Your task to perform on an android device: Open my contact list Image 0: 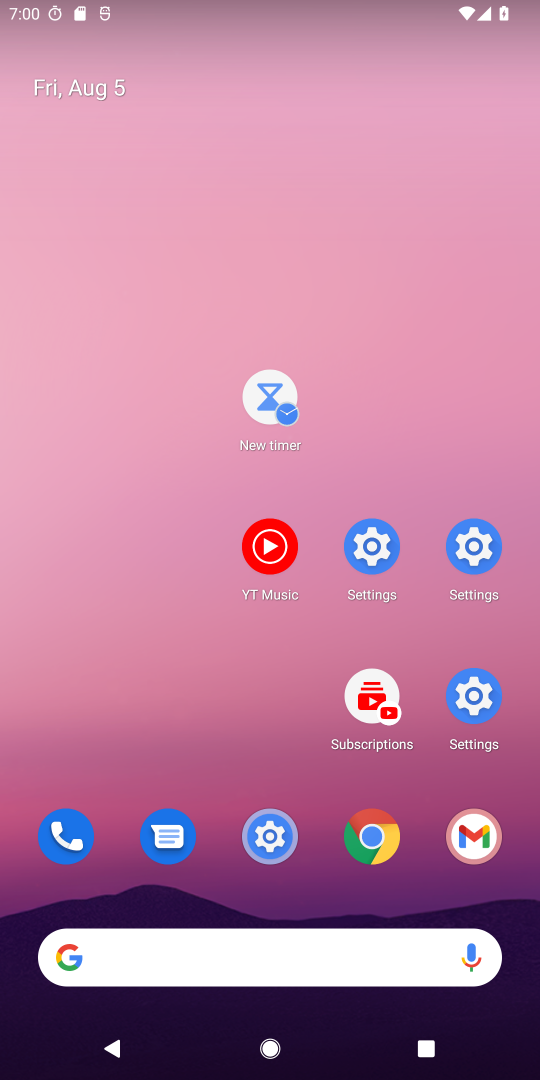
Step 0: click (168, 260)
Your task to perform on an android device: Open my contact list Image 1: 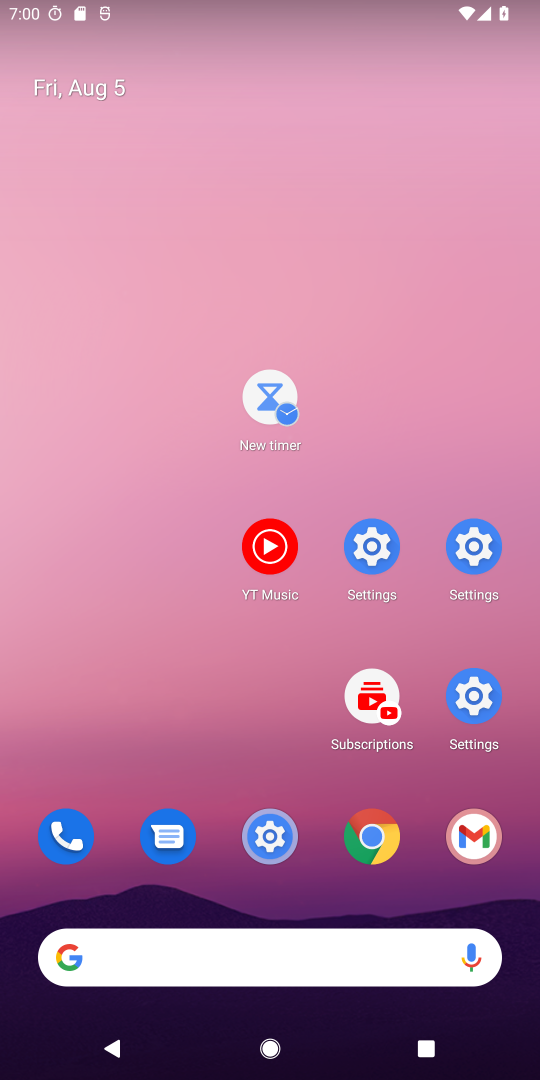
Step 1: drag from (291, 650) to (238, 197)
Your task to perform on an android device: Open my contact list Image 2: 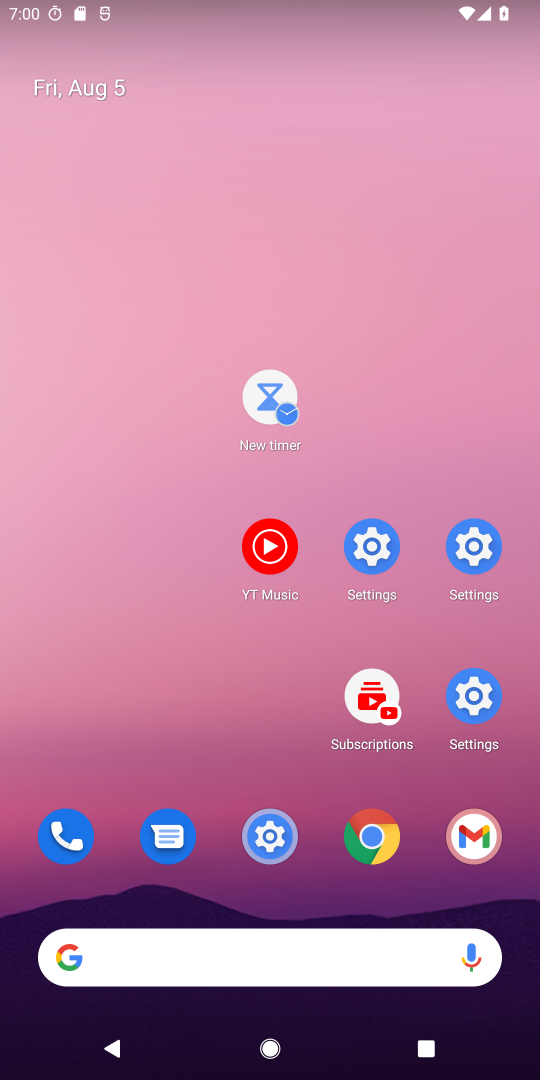
Step 2: drag from (138, 504) to (138, 402)
Your task to perform on an android device: Open my contact list Image 3: 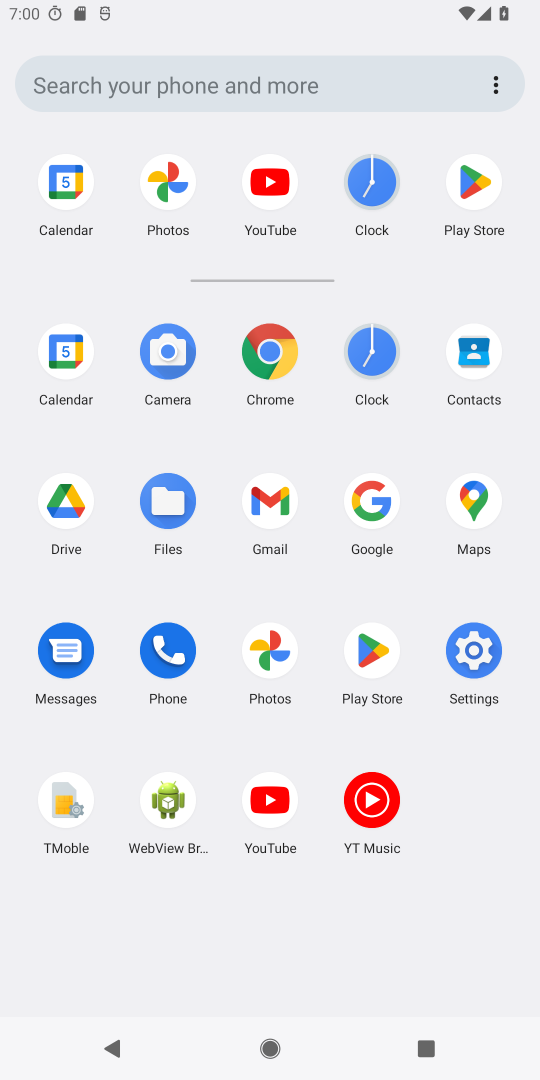
Step 3: drag from (200, 852) to (166, 428)
Your task to perform on an android device: Open my contact list Image 4: 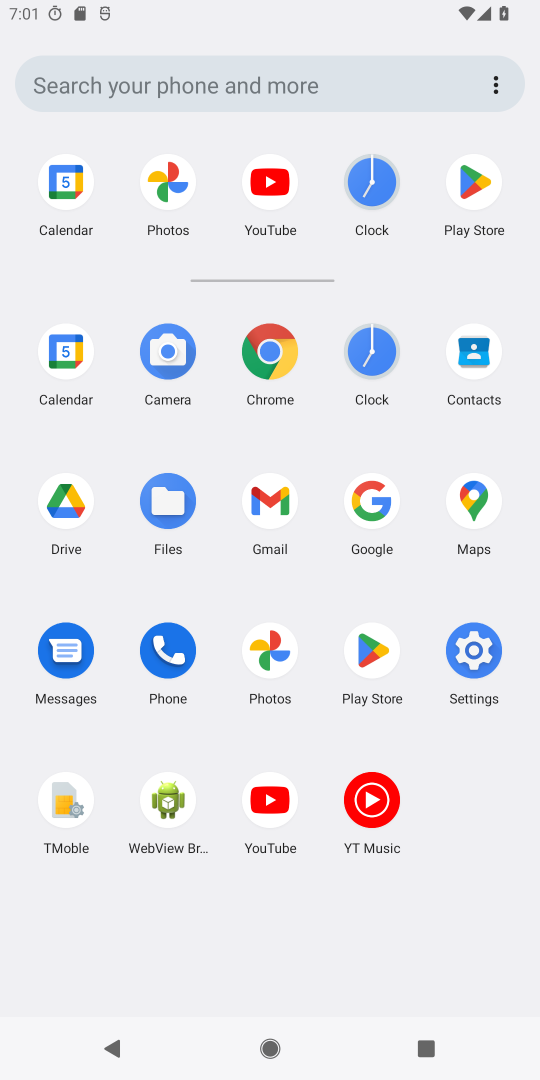
Step 4: click (471, 350)
Your task to perform on an android device: Open my contact list Image 5: 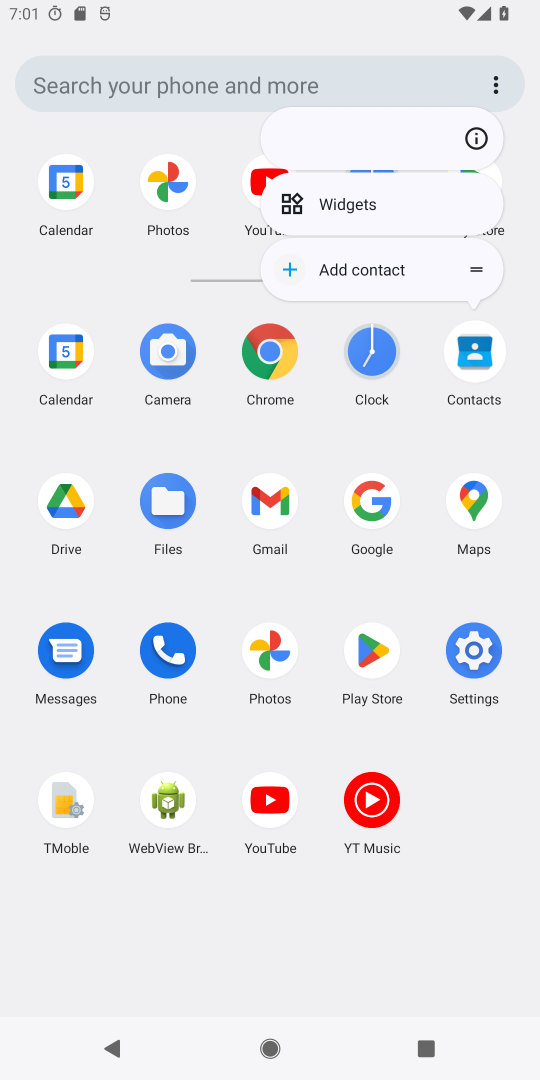
Step 5: click (472, 350)
Your task to perform on an android device: Open my contact list Image 6: 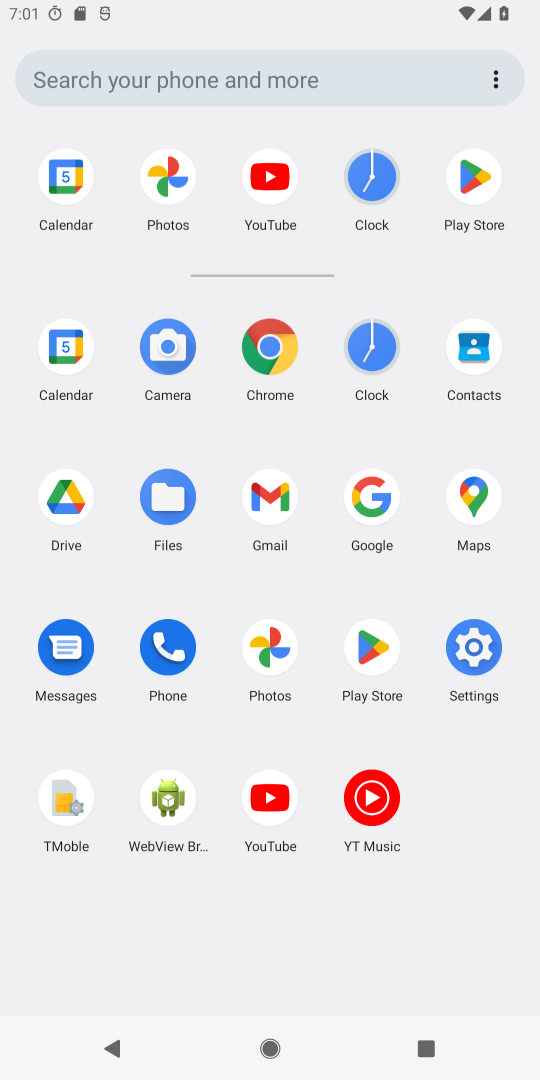
Step 6: click (478, 357)
Your task to perform on an android device: Open my contact list Image 7: 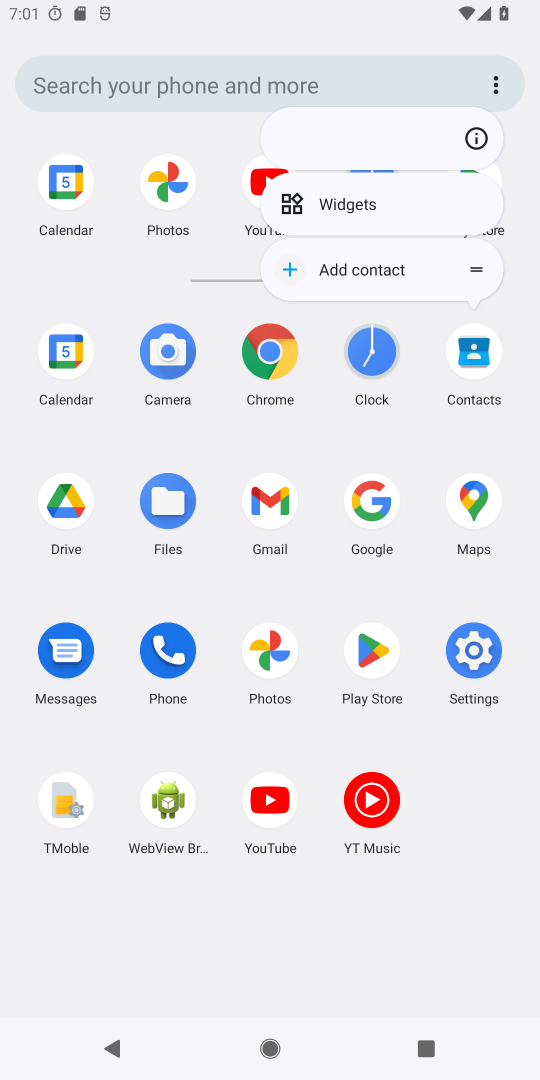
Step 7: click (478, 357)
Your task to perform on an android device: Open my contact list Image 8: 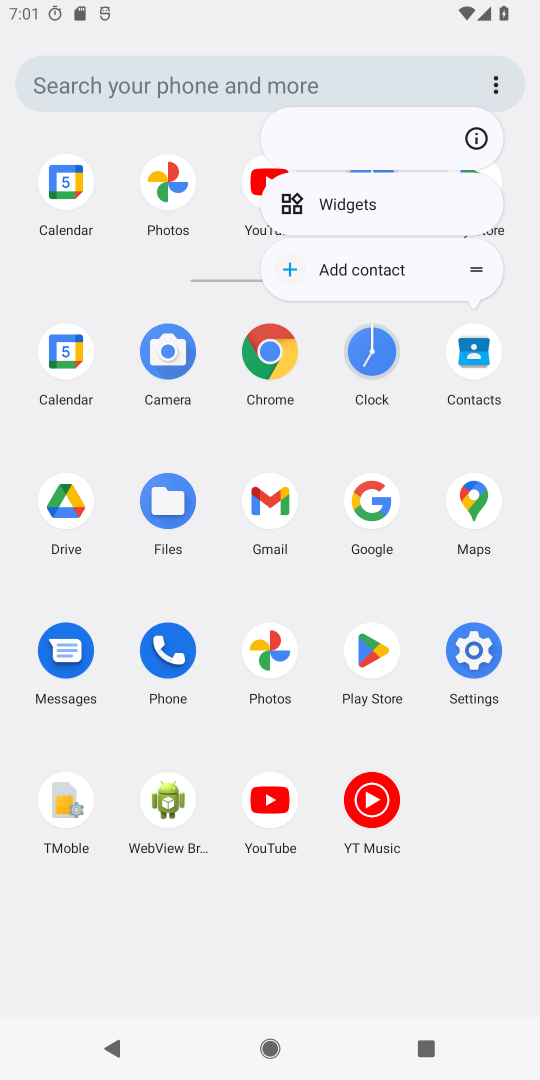
Step 8: click (478, 357)
Your task to perform on an android device: Open my contact list Image 9: 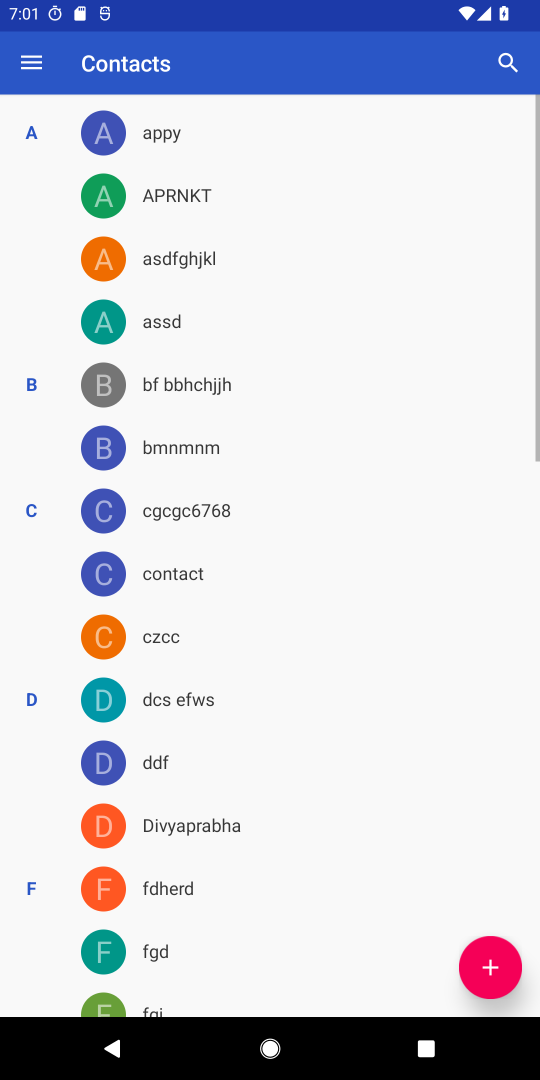
Step 9: click (478, 357)
Your task to perform on an android device: Open my contact list Image 10: 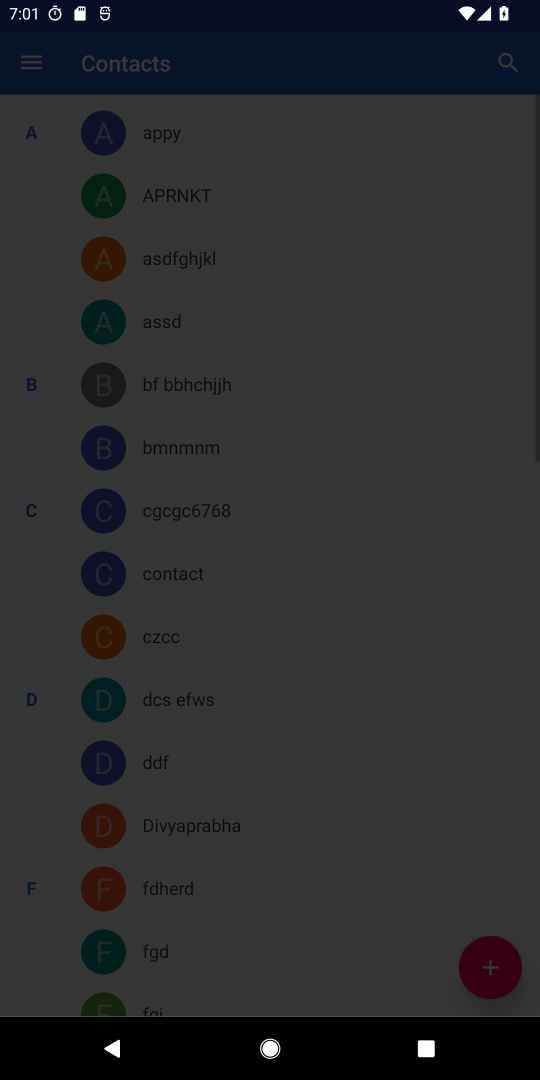
Step 10: task complete